Your task to perform on an android device: change notifications settings Image 0: 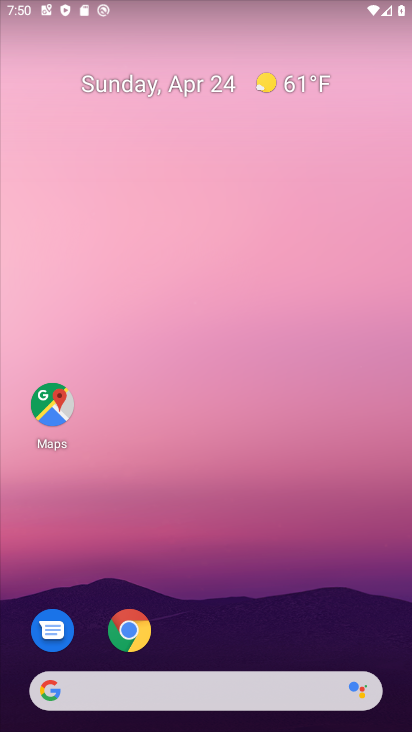
Step 0: drag from (286, 634) to (299, 57)
Your task to perform on an android device: change notifications settings Image 1: 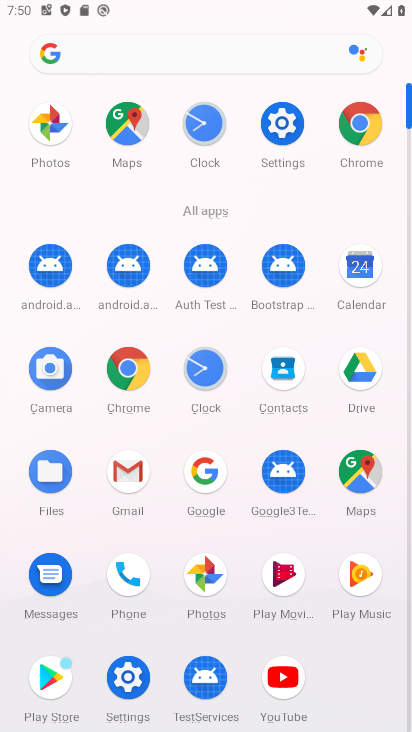
Step 1: click (304, 113)
Your task to perform on an android device: change notifications settings Image 2: 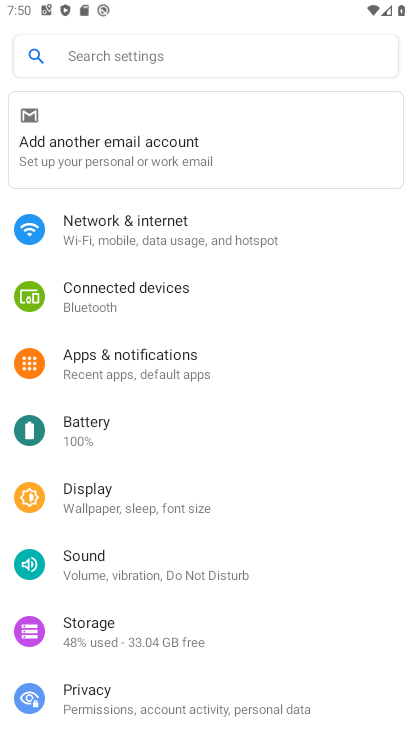
Step 2: drag from (345, 554) to (324, 375)
Your task to perform on an android device: change notifications settings Image 3: 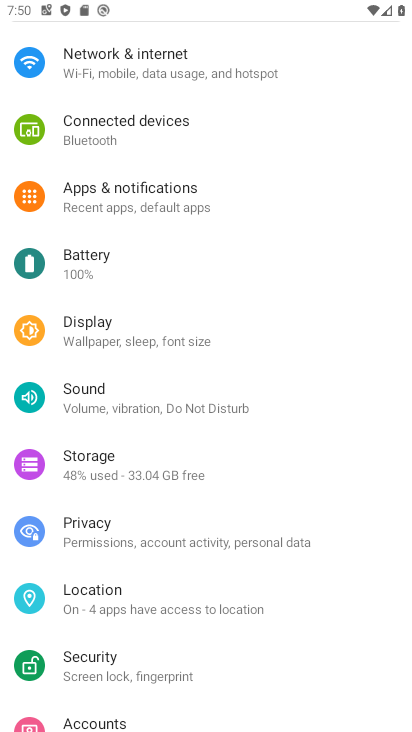
Step 3: drag from (355, 633) to (355, 292)
Your task to perform on an android device: change notifications settings Image 4: 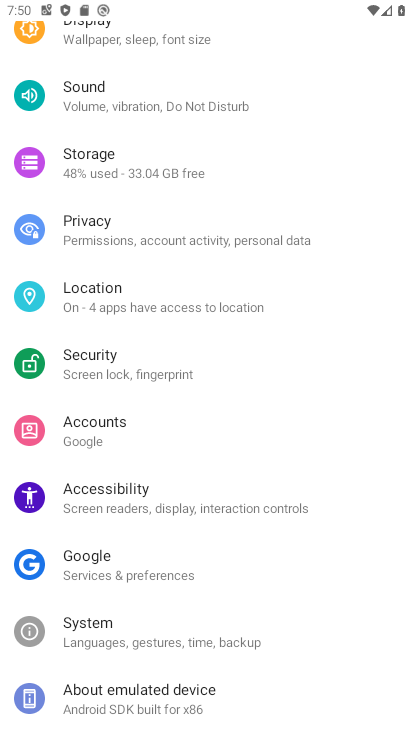
Step 4: drag from (348, 243) to (356, 481)
Your task to perform on an android device: change notifications settings Image 5: 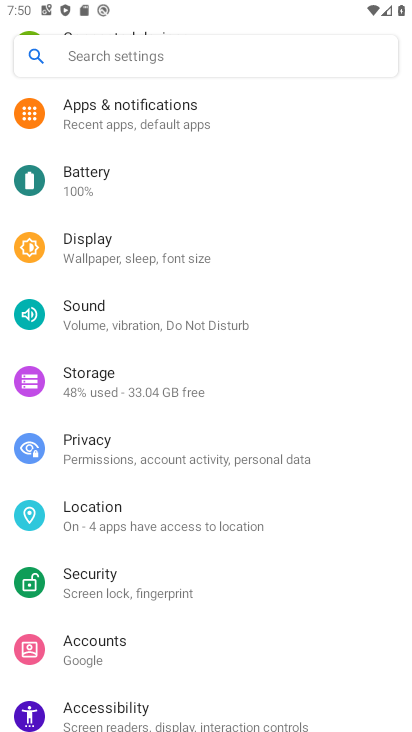
Step 5: drag from (368, 264) to (371, 457)
Your task to perform on an android device: change notifications settings Image 6: 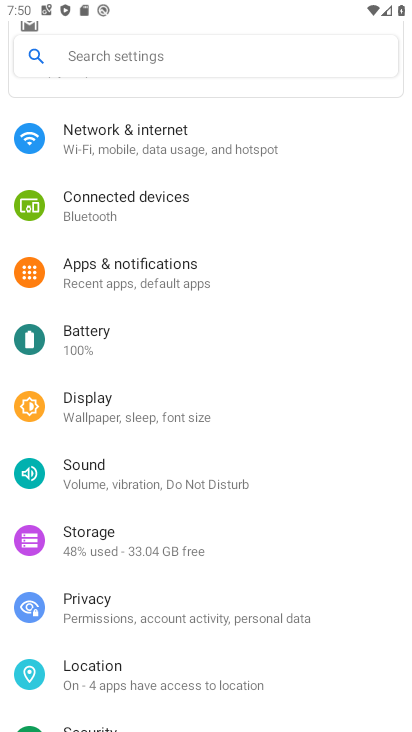
Step 6: drag from (365, 233) to (373, 402)
Your task to perform on an android device: change notifications settings Image 7: 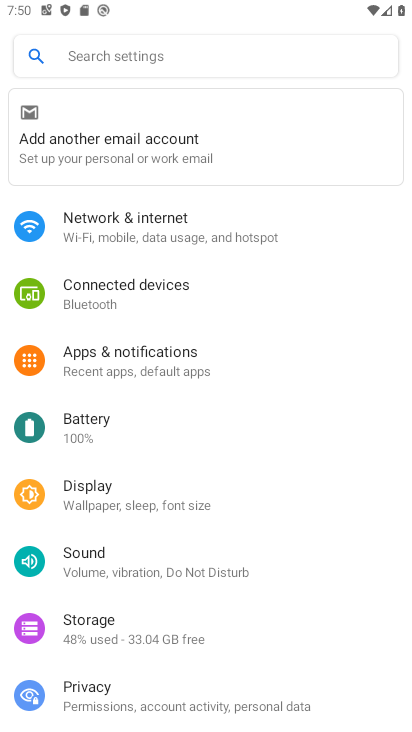
Step 7: click (197, 361)
Your task to perform on an android device: change notifications settings Image 8: 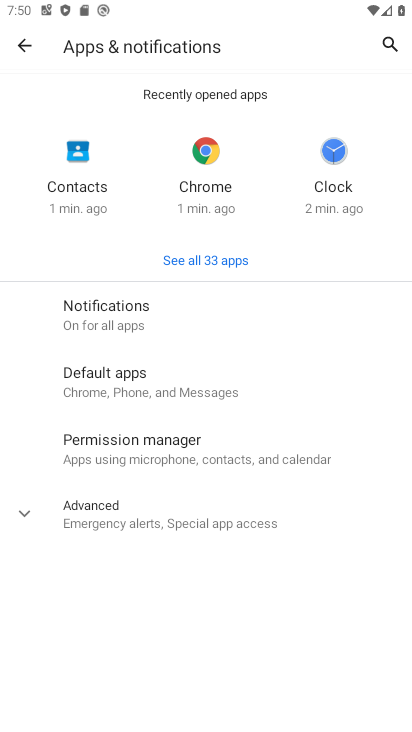
Step 8: click (231, 317)
Your task to perform on an android device: change notifications settings Image 9: 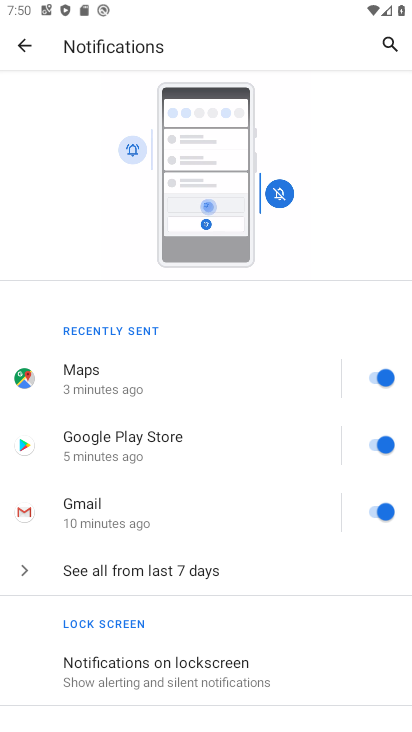
Step 9: click (373, 376)
Your task to perform on an android device: change notifications settings Image 10: 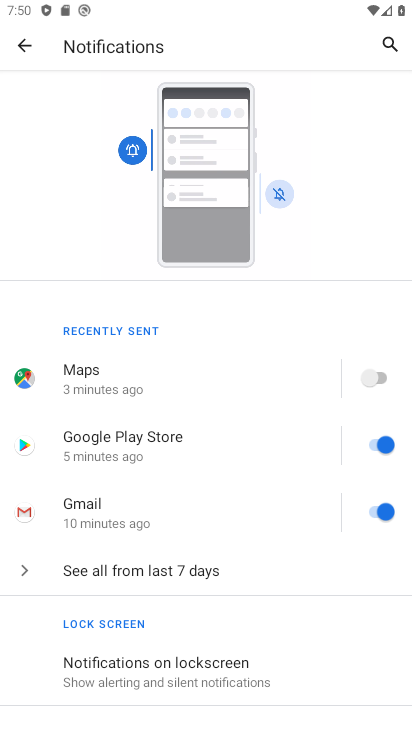
Step 10: click (383, 448)
Your task to perform on an android device: change notifications settings Image 11: 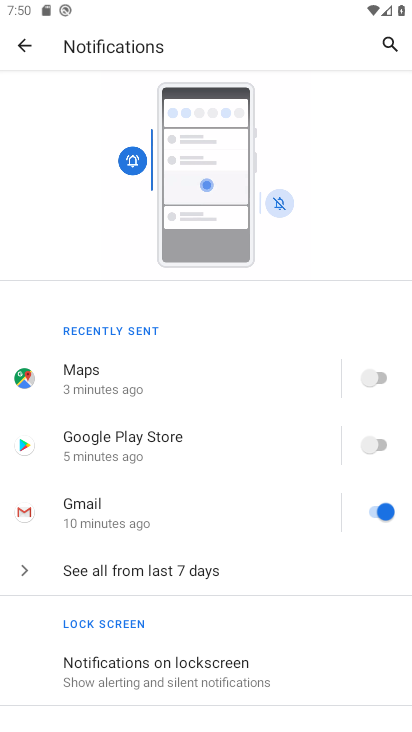
Step 11: click (383, 523)
Your task to perform on an android device: change notifications settings Image 12: 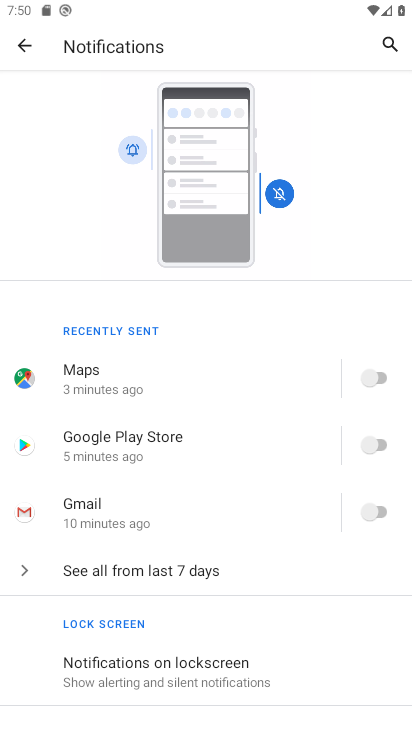
Step 12: task complete